Your task to perform on an android device: toggle location history Image 0: 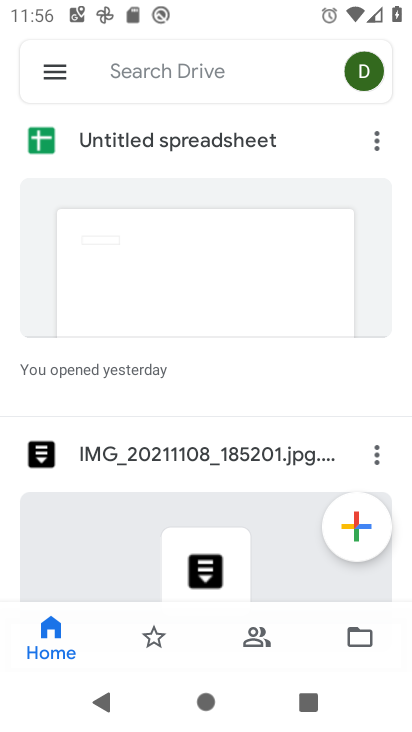
Step 0: press home button
Your task to perform on an android device: toggle location history Image 1: 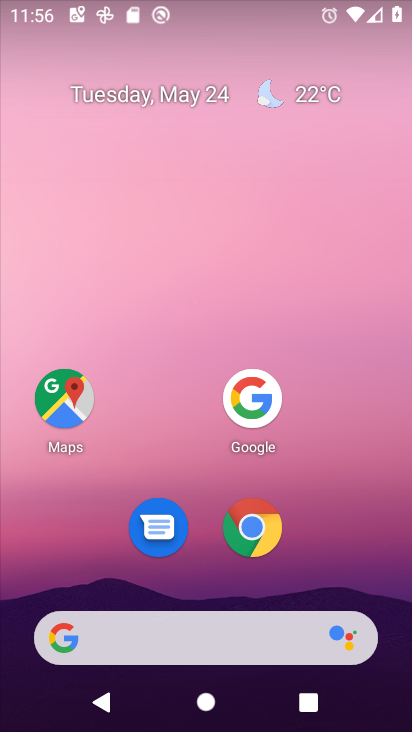
Step 1: drag from (208, 647) to (312, 202)
Your task to perform on an android device: toggle location history Image 2: 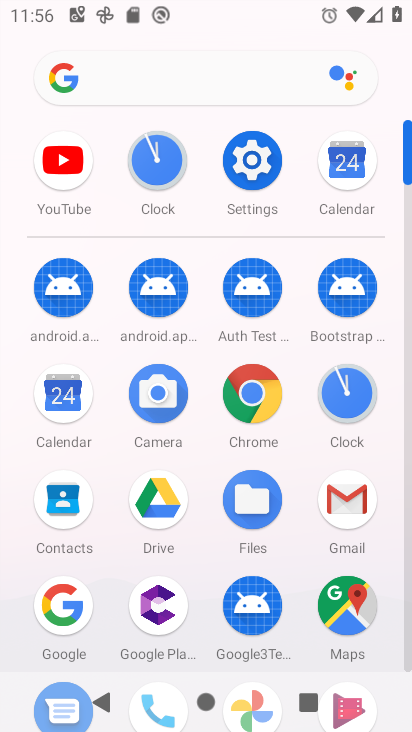
Step 2: drag from (242, 546) to (325, 312)
Your task to perform on an android device: toggle location history Image 3: 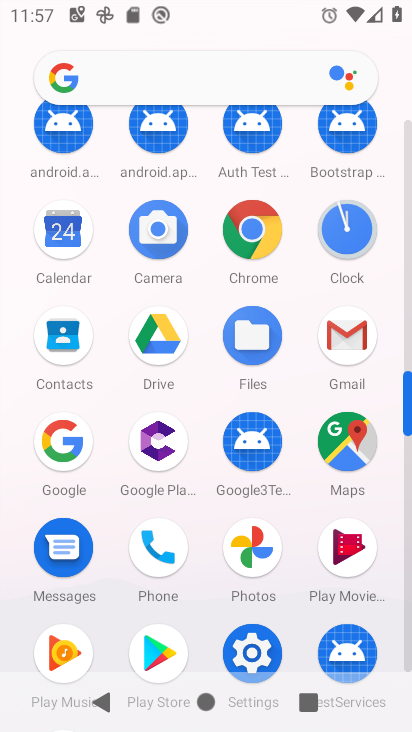
Step 3: click (344, 451)
Your task to perform on an android device: toggle location history Image 4: 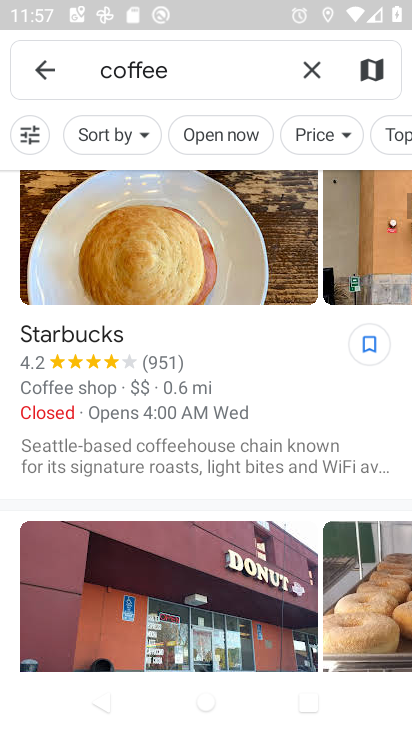
Step 4: click (45, 66)
Your task to perform on an android device: toggle location history Image 5: 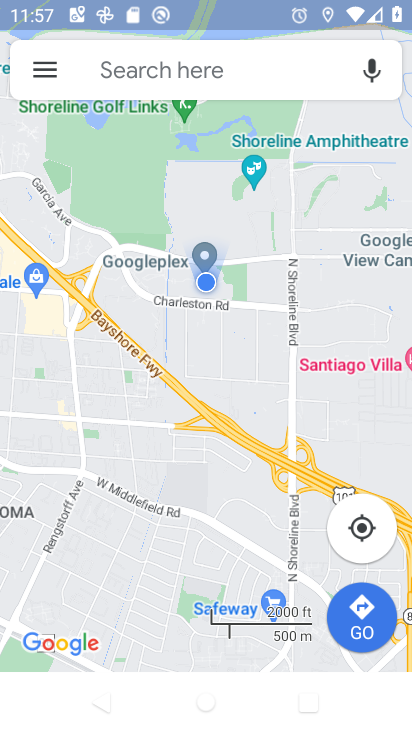
Step 5: click (45, 66)
Your task to perform on an android device: toggle location history Image 6: 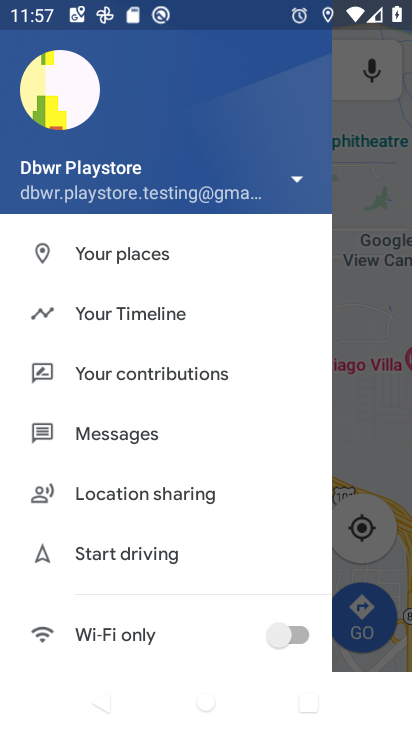
Step 6: drag from (186, 622) to (192, 481)
Your task to perform on an android device: toggle location history Image 7: 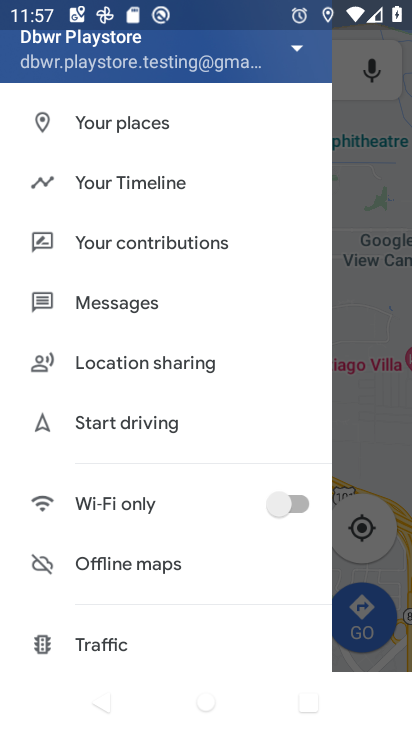
Step 7: click (119, 181)
Your task to perform on an android device: toggle location history Image 8: 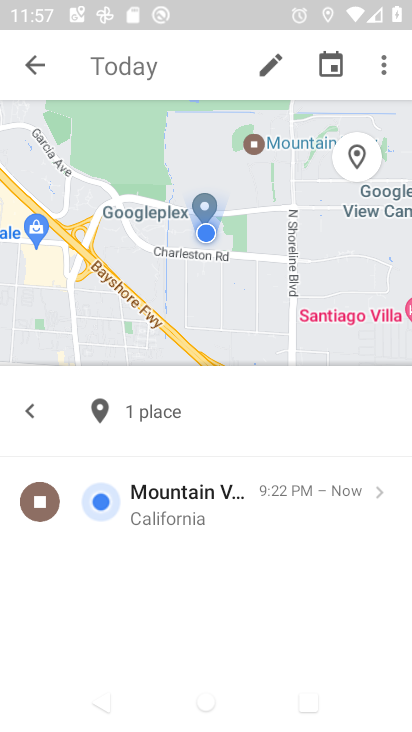
Step 8: click (387, 74)
Your task to perform on an android device: toggle location history Image 9: 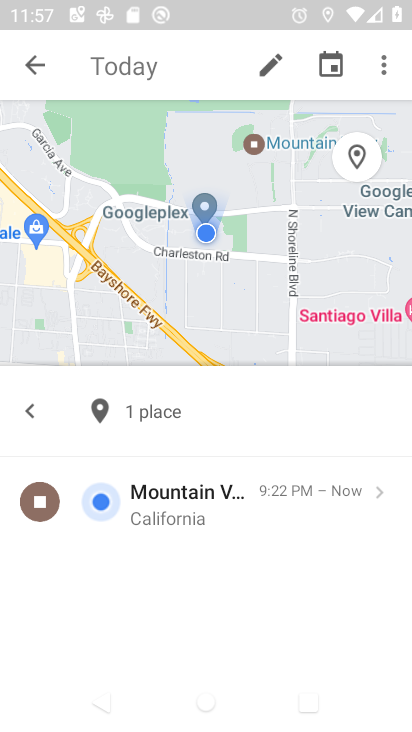
Step 9: click (380, 68)
Your task to perform on an android device: toggle location history Image 10: 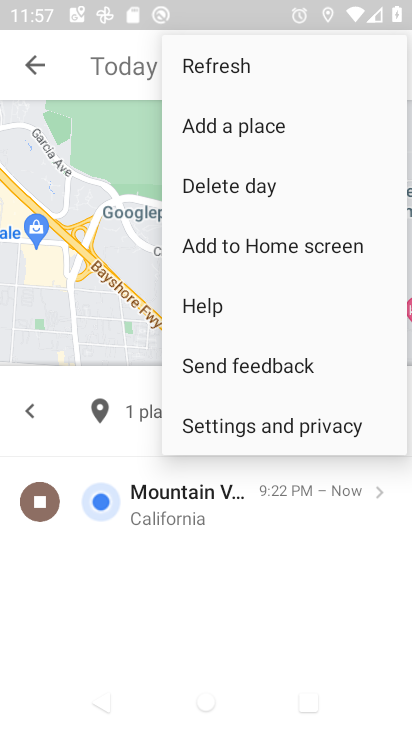
Step 10: click (215, 433)
Your task to perform on an android device: toggle location history Image 11: 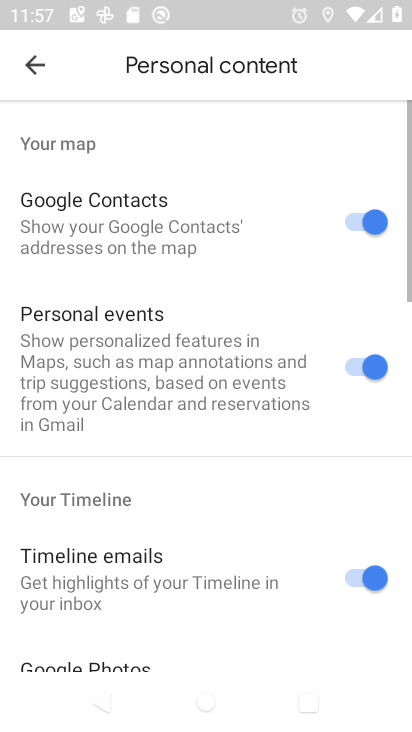
Step 11: drag from (205, 656) to (374, 71)
Your task to perform on an android device: toggle location history Image 12: 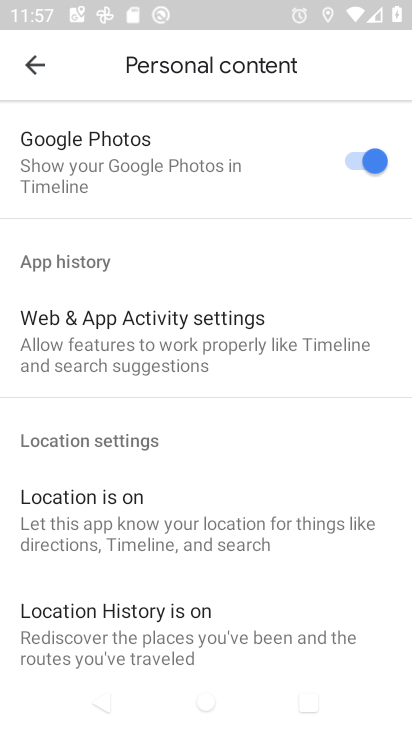
Step 12: drag from (227, 576) to (359, 216)
Your task to perform on an android device: toggle location history Image 13: 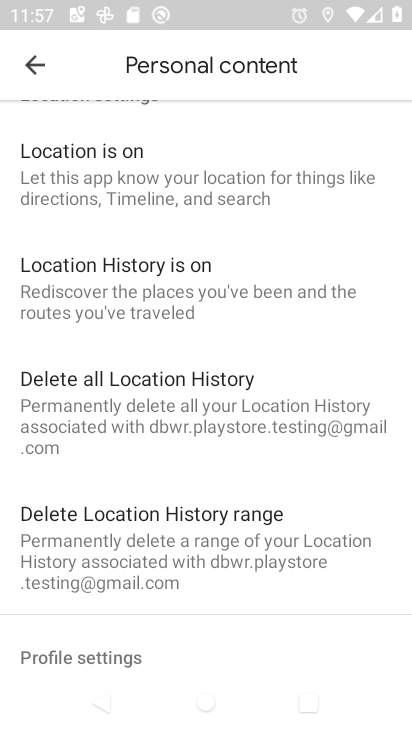
Step 13: click (180, 279)
Your task to perform on an android device: toggle location history Image 14: 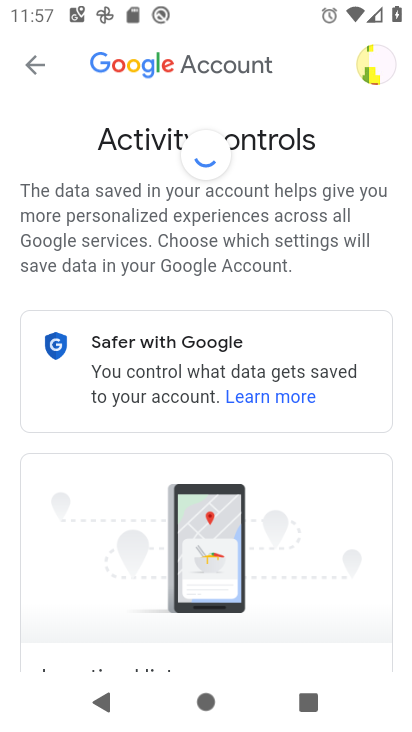
Step 14: drag from (312, 597) to (372, 171)
Your task to perform on an android device: toggle location history Image 15: 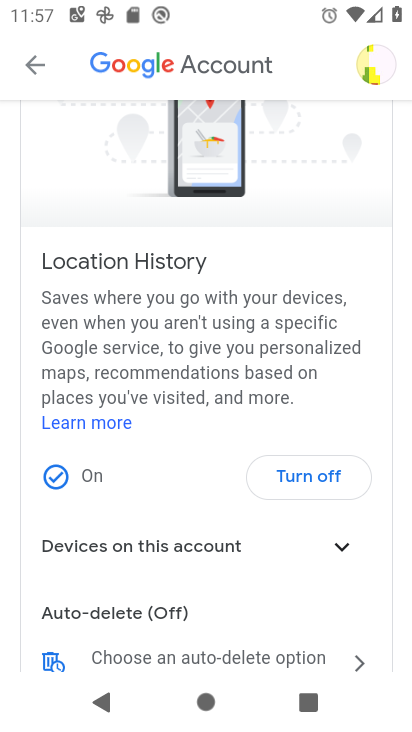
Step 15: click (299, 474)
Your task to perform on an android device: toggle location history Image 16: 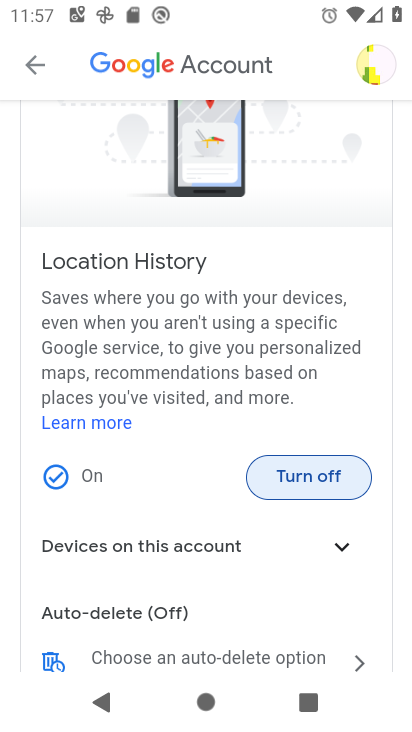
Step 16: click (308, 483)
Your task to perform on an android device: toggle location history Image 17: 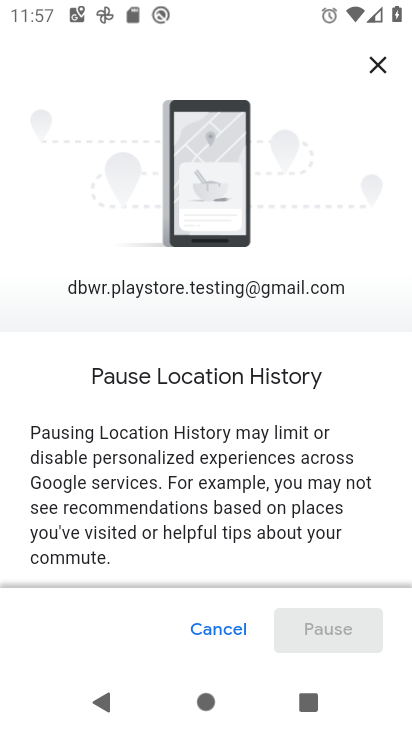
Step 17: drag from (231, 561) to (350, 133)
Your task to perform on an android device: toggle location history Image 18: 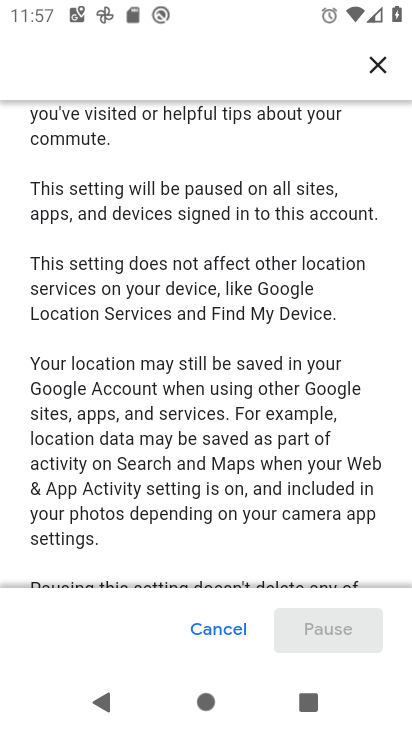
Step 18: drag from (288, 562) to (386, 150)
Your task to perform on an android device: toggle location history Image 19: 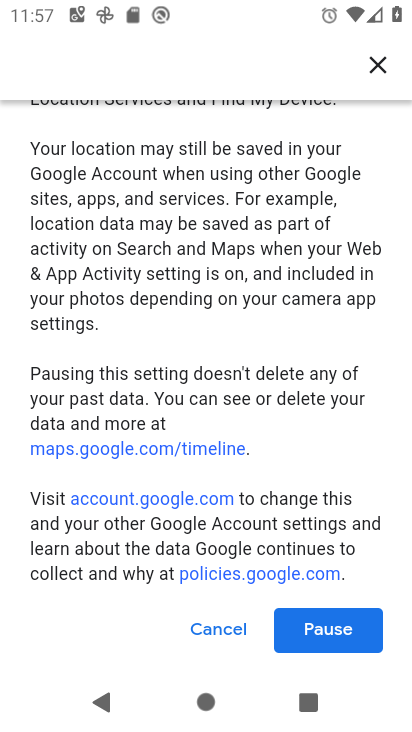
Step 19: click (332, 634)
Your task to perform on an android device: toggle location history Image 20: 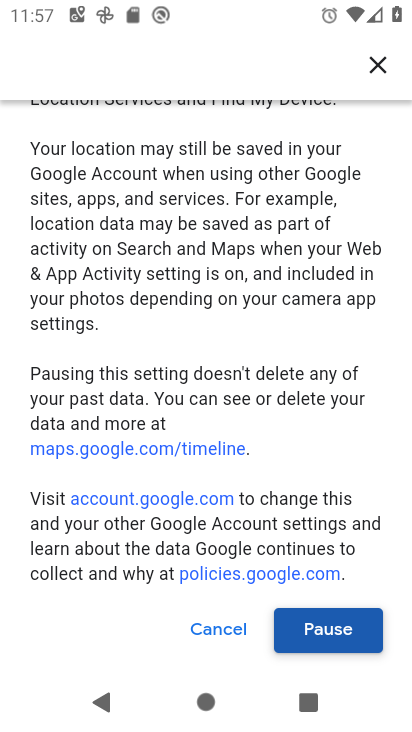
Step 20: click (322, 632)
Your task to perform on an android device: toggle location history Image 21: 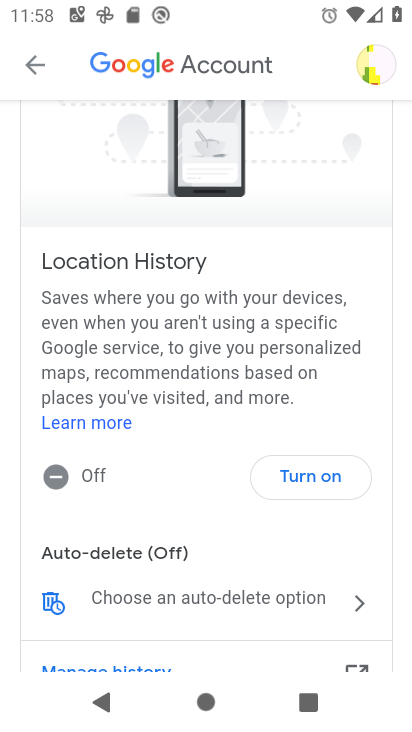
Step 21: task complete